Your task to perform on an android device: turn on translation in the chrome app Image 0: 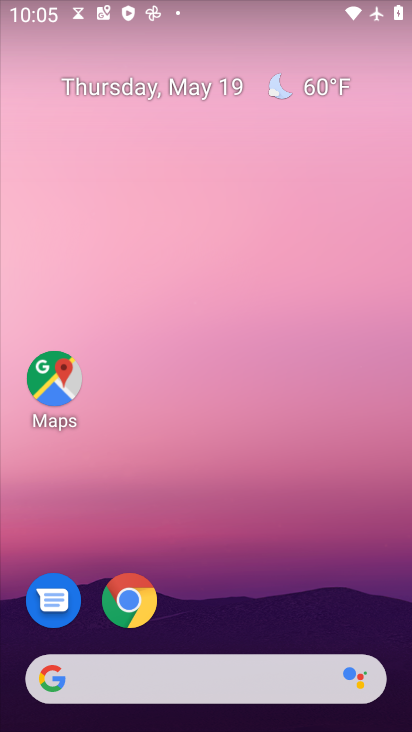
Step 0: drag from (229, 384) to (237, 8)
Your task to perform on an android device: turn on translation in the chrome app Image 1: 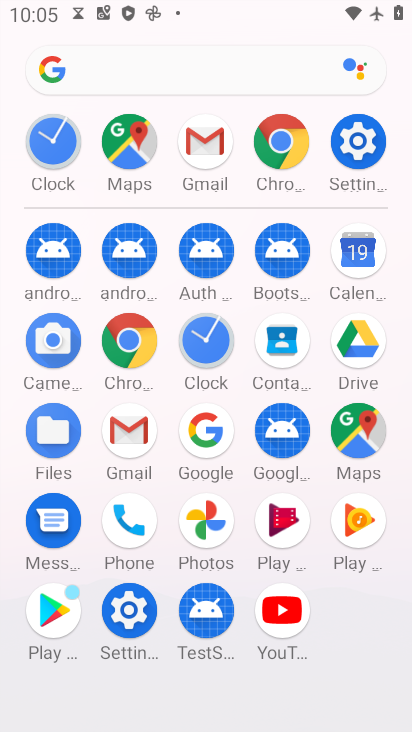
Step 1: click (123, 343)
Your task to perform on an android device: turn on translation in the chrome app Image 2: 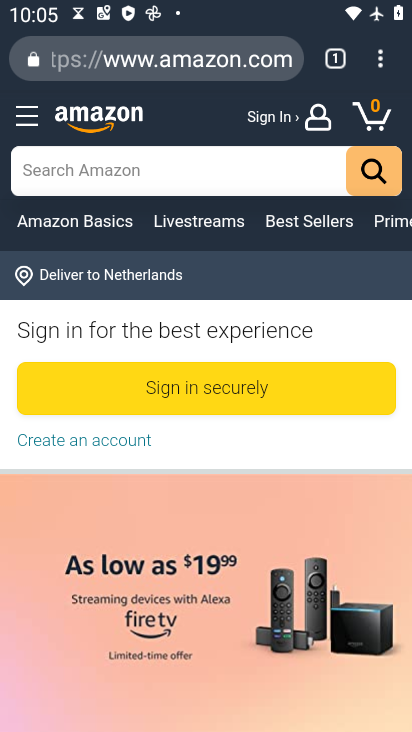
Step 2: drag from (375, 64) to (231, 623)
Your task to perform on an android device: turn on translation in the chrome app Image 3: 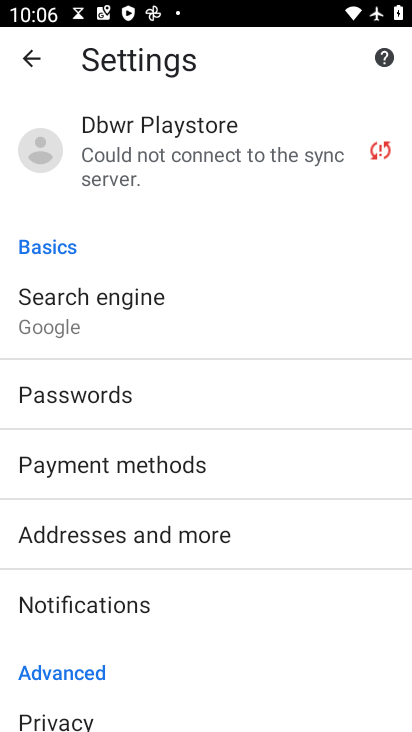
Step 3: drag from (198, 584) to (221, 134)
Your task to perform on an android device: turn on translation in the chrome app Image 4: 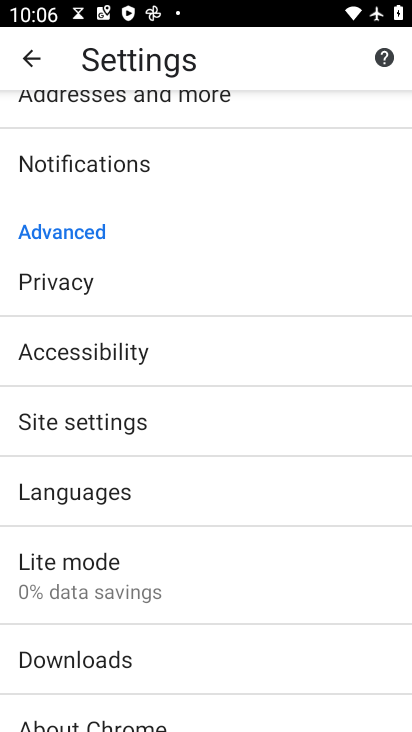
Step 4: drag from (223, 547) to (248, 148)
Your task to perform on an android device: turn on translation in the chrome app Image 5: 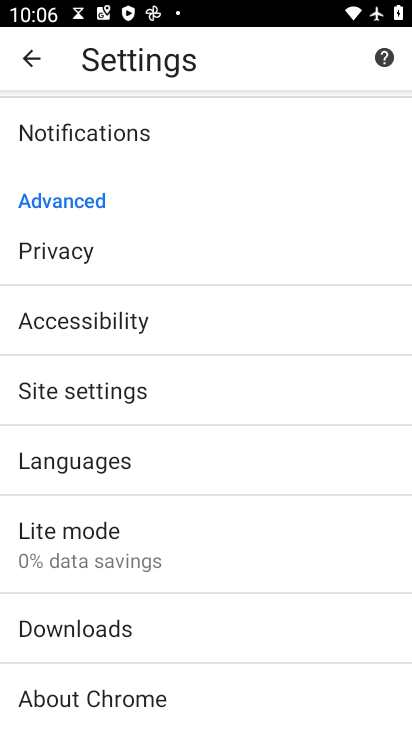
Step 5: click (140, 460)
Your task to perform on an android device: turn on translation in the chrome app Image 6: 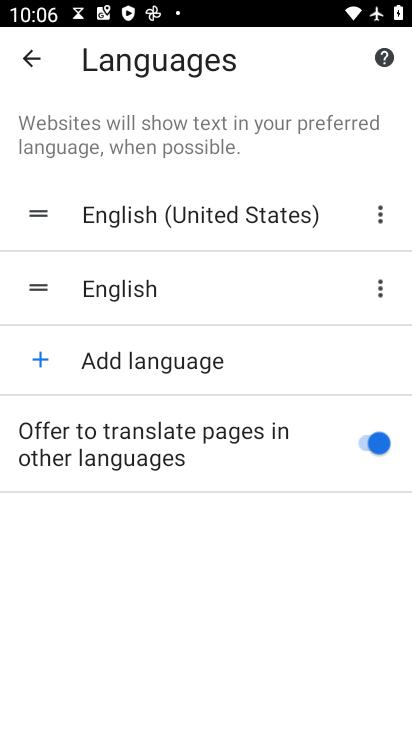
Step 6: task complete